Your task to perform on an android device: Go to internet settings Image 0: 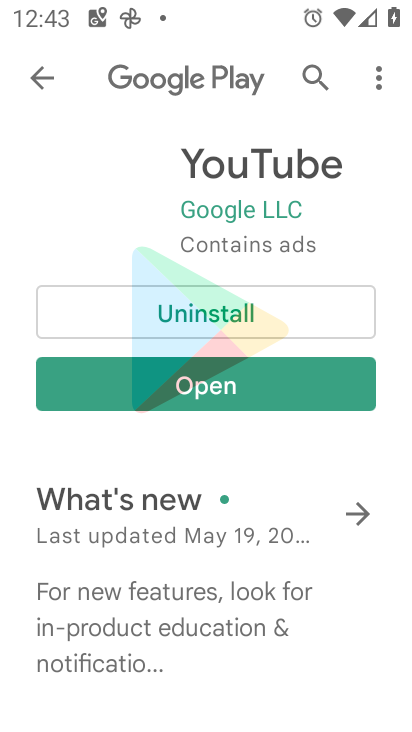
Step 0: drag from (388, 649) to (340, 33)
Your task to perform on an android device: Go to internet settings Image 1: 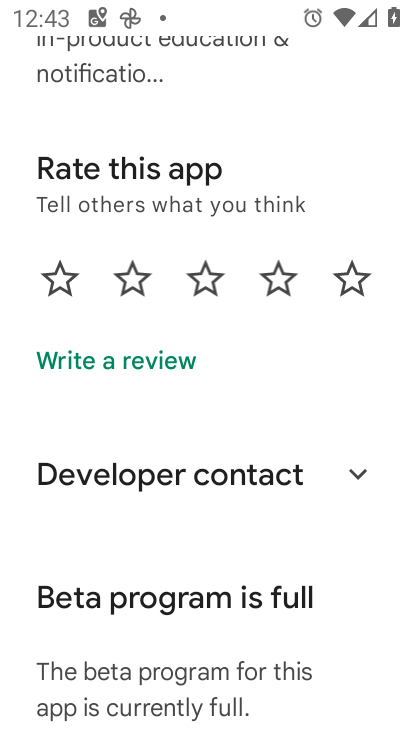
Step 1: press home button
Your task to perform on an android device: Go to internet settings Image 2: 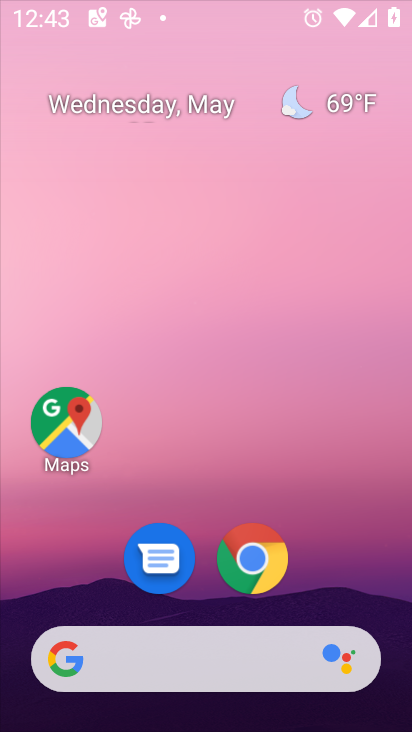
Step 2: drag from (392, 676) to (329, 11)
Your task to perform on an android device: Go to internet settings Image 3: 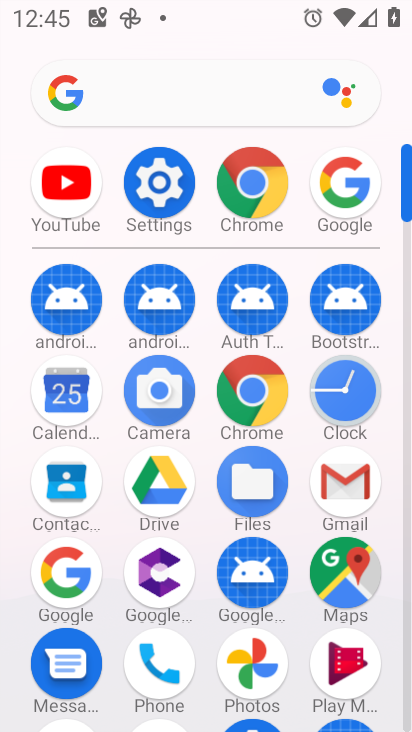
Step 3: click (170, 157)
Your task to perform on an android device: Go to internet settings Image 4: 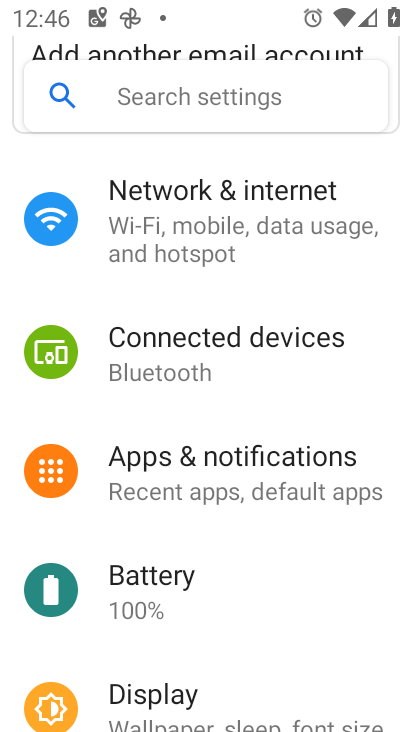
Step 4: click (166, 245)
Your task to perform on an android device: Go to internet settings Image 5: 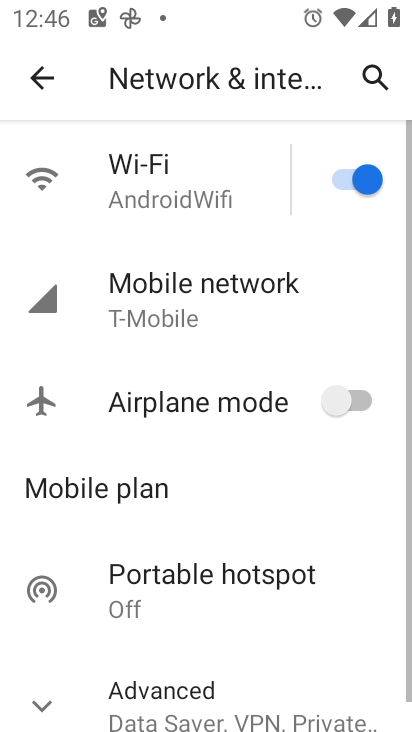
Step 5: task complete